Your task to perform on an android device: What's the weather today? Image 0: 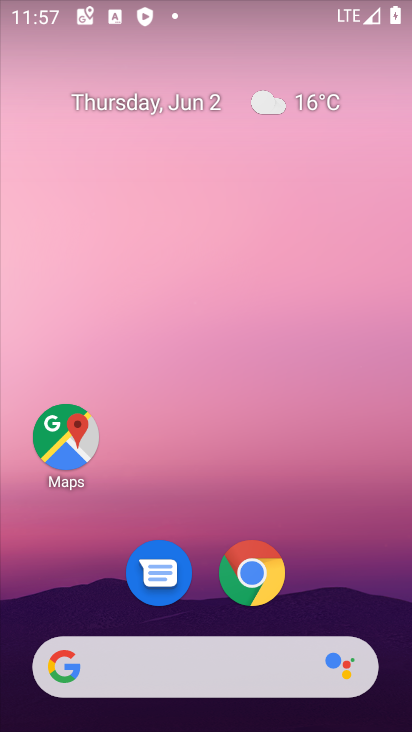
Step 0: drag from (318, 613) to (292, 722)
Your task to perform on an android device: What's the weather today? Image 1: 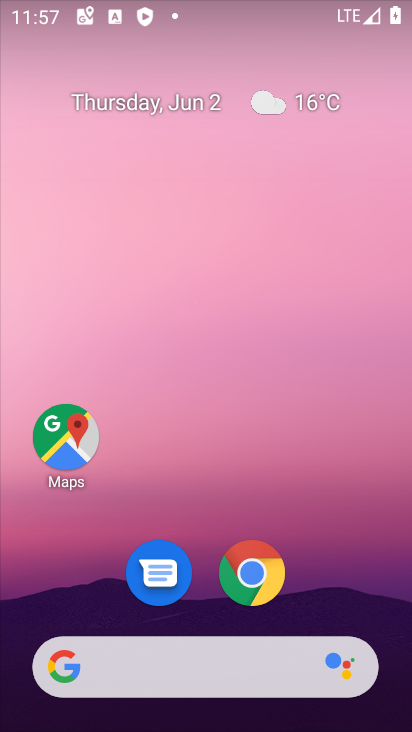
Step 1: click (327, 101)
Your task to perform on an android device: What's the weather today? Image 2: 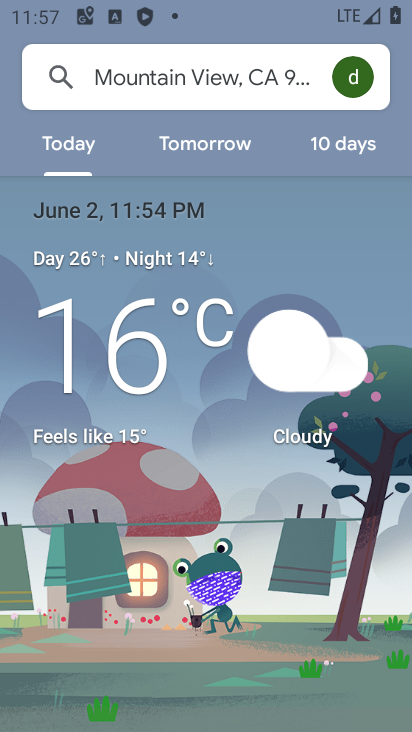
Step 2: task complete